Your task to perform on an android device: Go to Amazon Image 0: 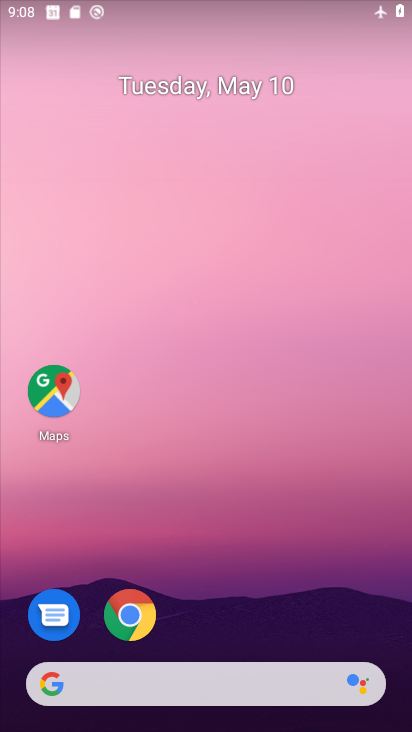
Step 0: drag from (208, 613) to (210, 227)
Your task to perform on an android device: Go to Amazon Image 1: 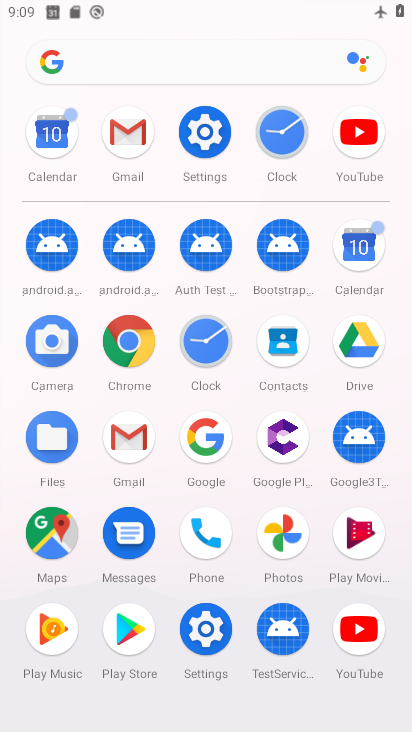
Step 1: click (134, 350)
Your task to perform on an android device: Go to Amazon Image 2: 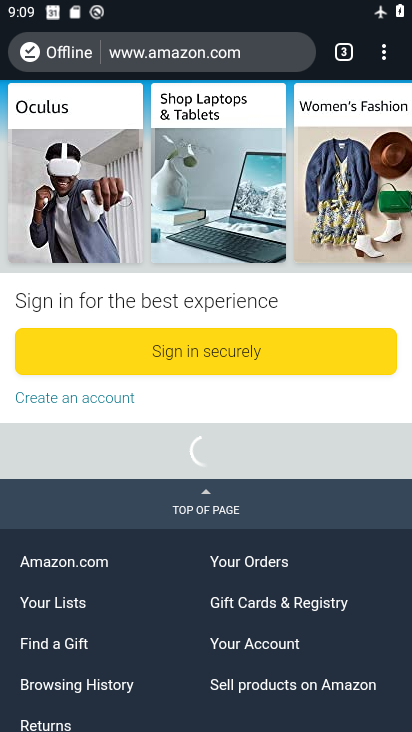
Step 2: task complete